Your task to perform on an android device: change the upload size in google photos Image 0: 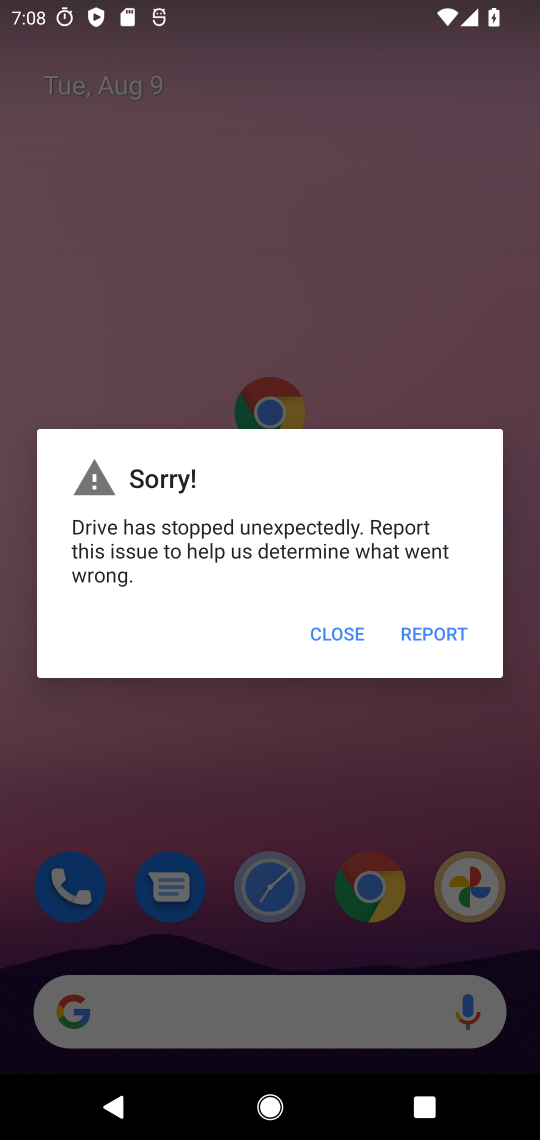
Step 0: click (349, 643)
Your task to perform on an android device: change the upload size in google photos Image 1: 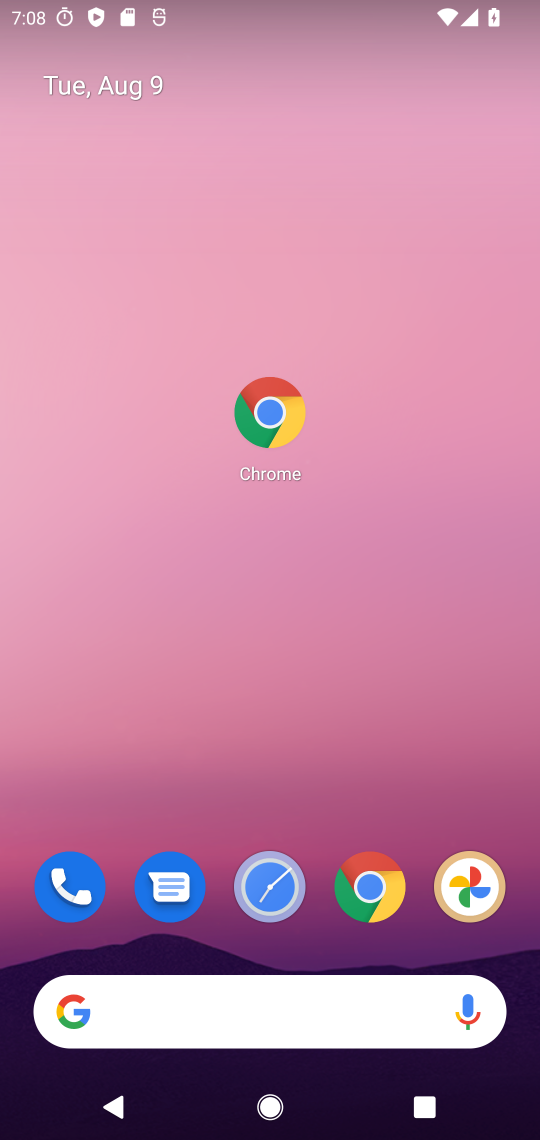
Step 1: drag from (267, 615) to (233, 390)
Your task to perform on an android device: change the upload size in google photos Image 2: 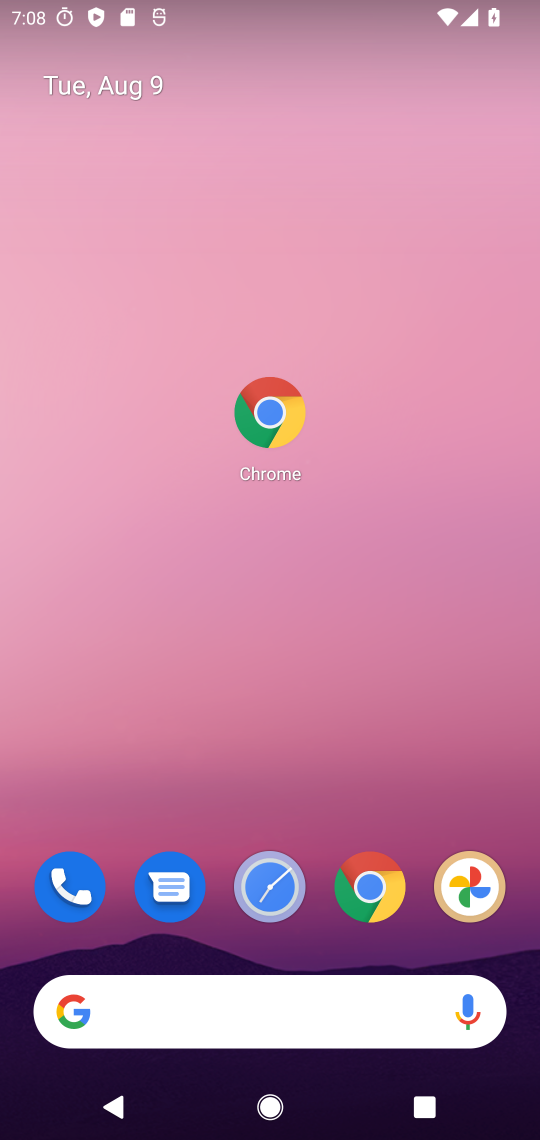
Step 2: drag from (270, 497) to (247, 217)
Your task to perform on an android device: change the upload size in google photos Image 3: 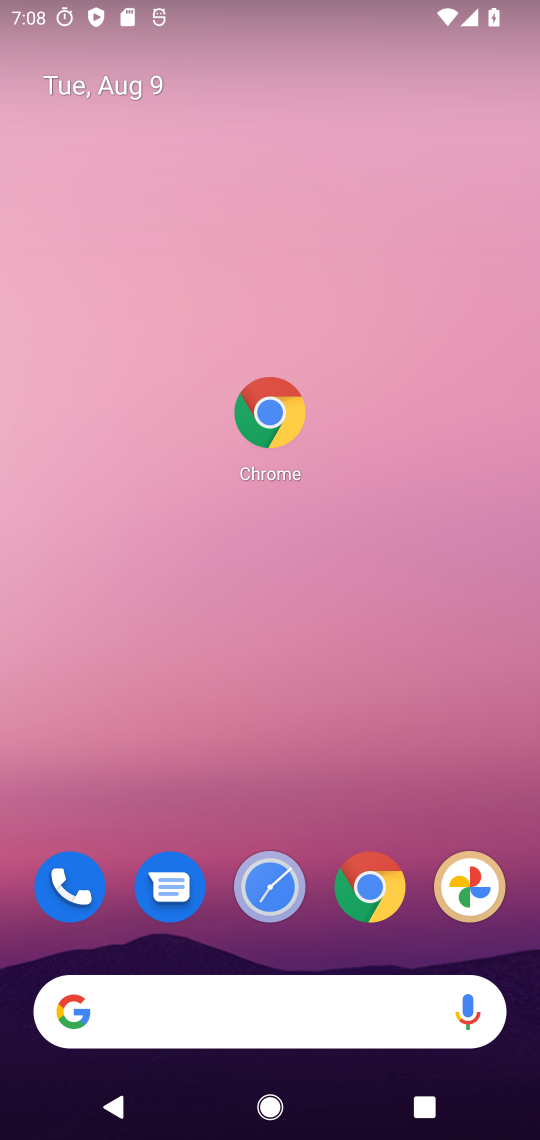
Step 3: drag from (269, 867) to (219, 70)
Your task to perform on an android device: change the upload size in google photos Image 4: 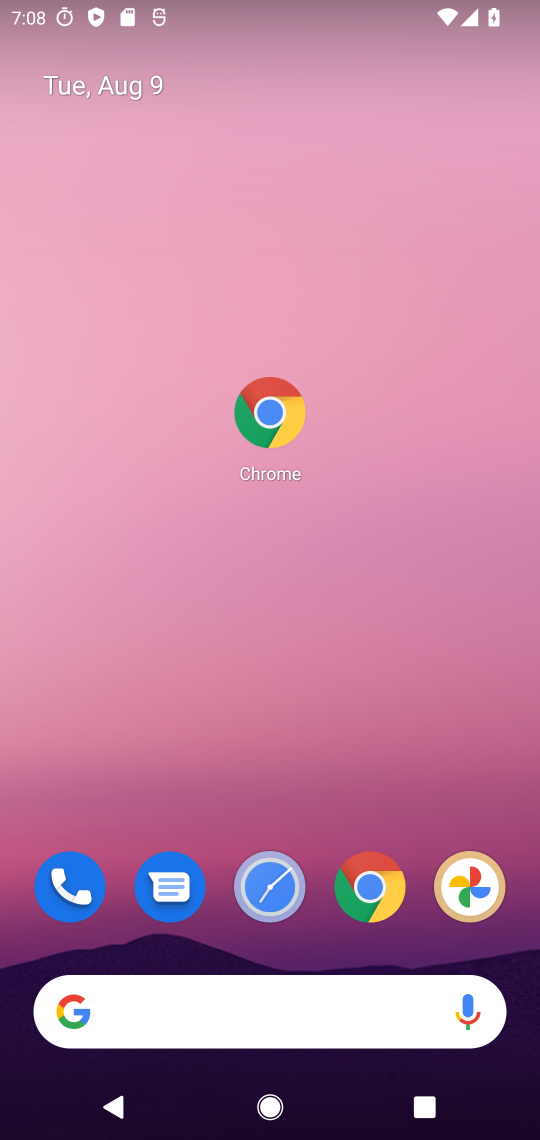
Step 4: drag from (323, 702) to (323, 177)
Your task to perform on an android device: change the upload size in google photos Image 5: 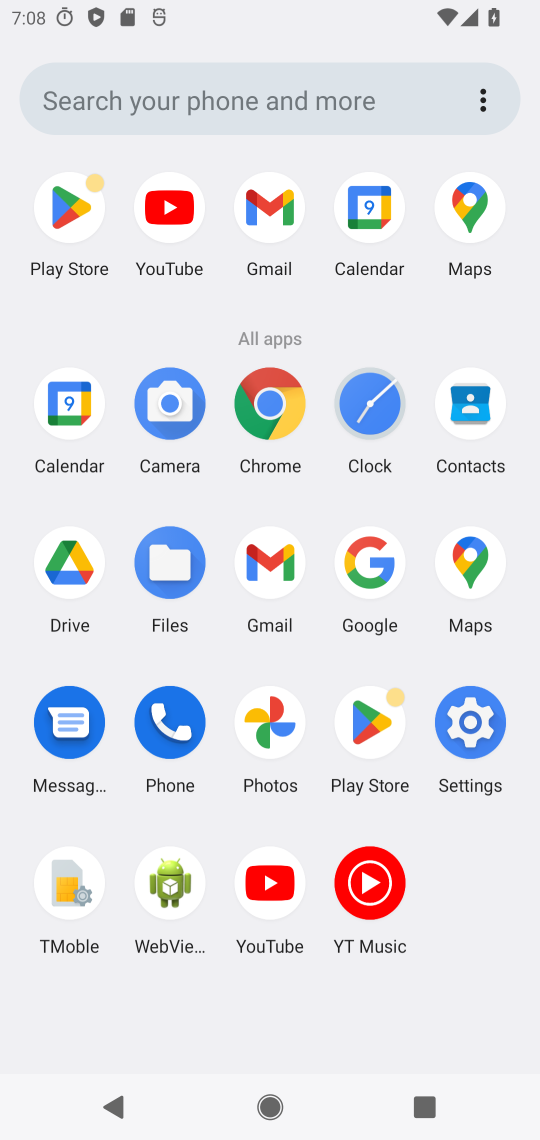
Step 5: drag from (295, 165) to (295, 86)
Your task to perform on an android device: change the upload size in google photos Image 6: 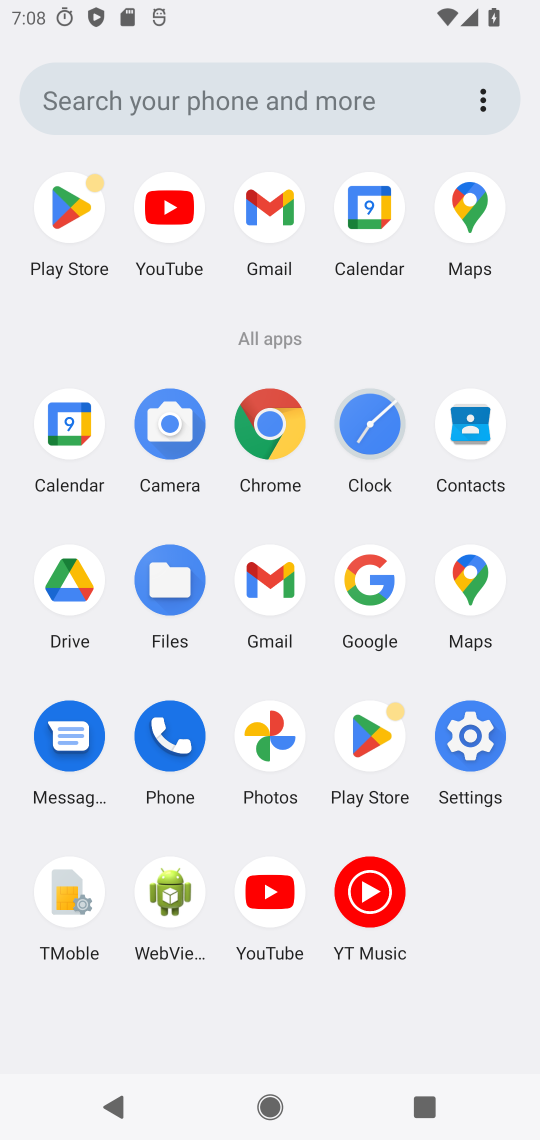
Step 6: click (259, 744)
Your task to perform on an android device: change the upload size in google photos Image 7: 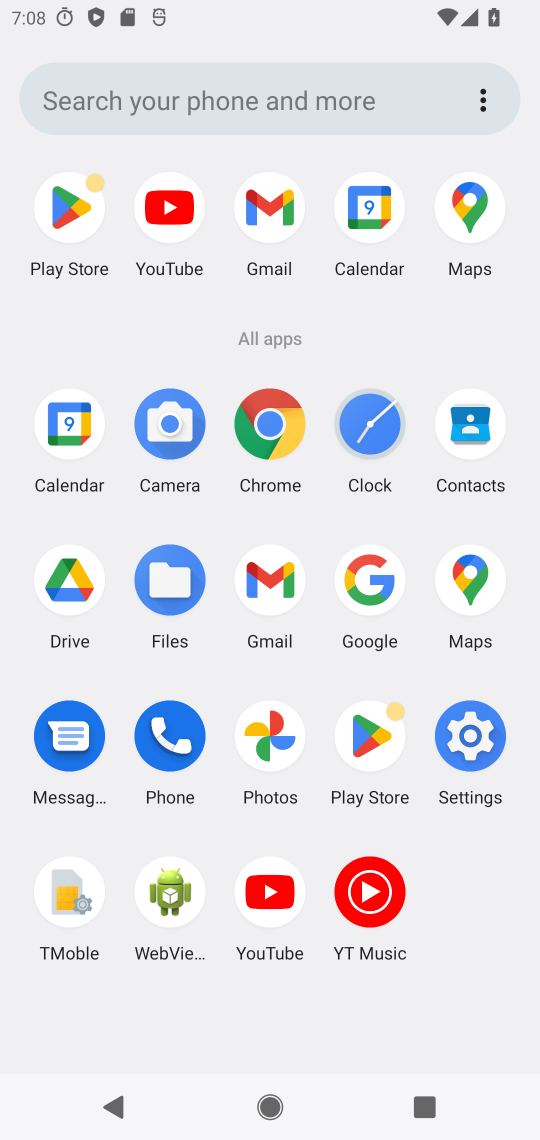
Step 7: click (257, 743)
Your task to perform on an android device: change the upload size in google photos Image 8: 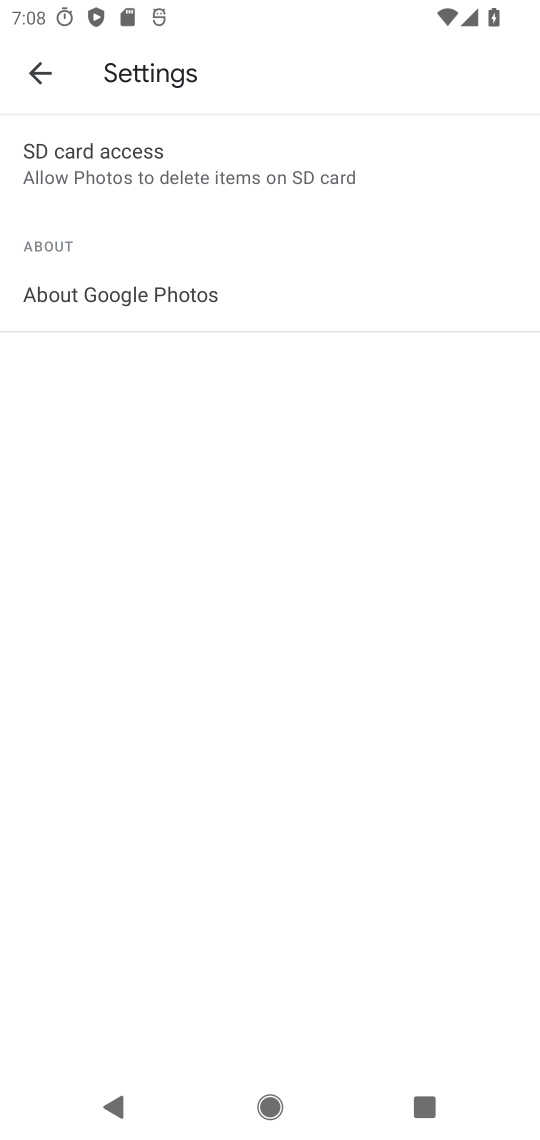
Step 8: click (255, 744)
Your task to perform on an android device: change the upload size in google photos Image 9: 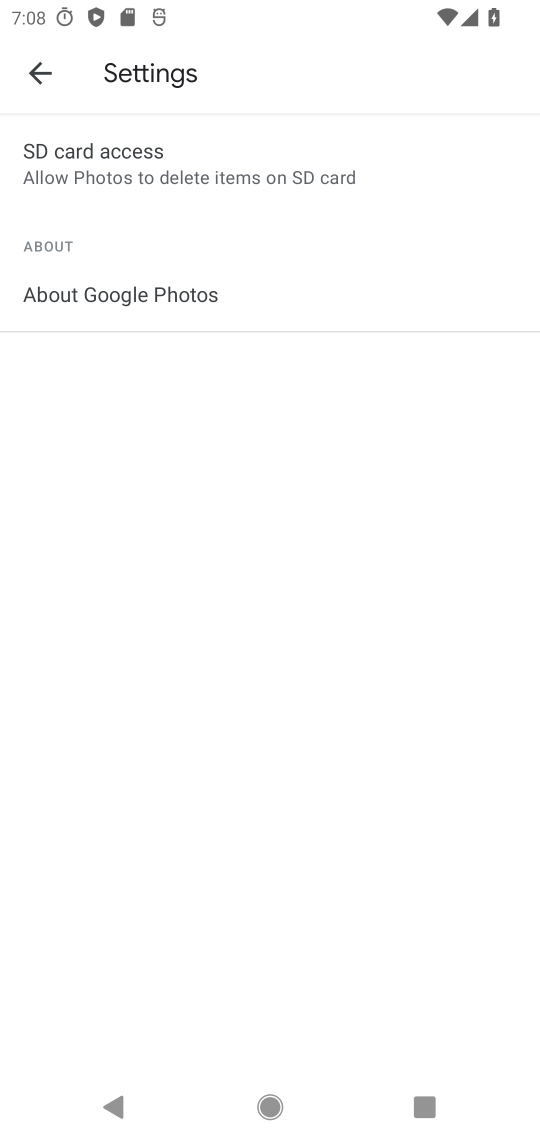
Step 9: click (44, 42)
Your task to perform on an android device: change the upload size in google photos Image 10: 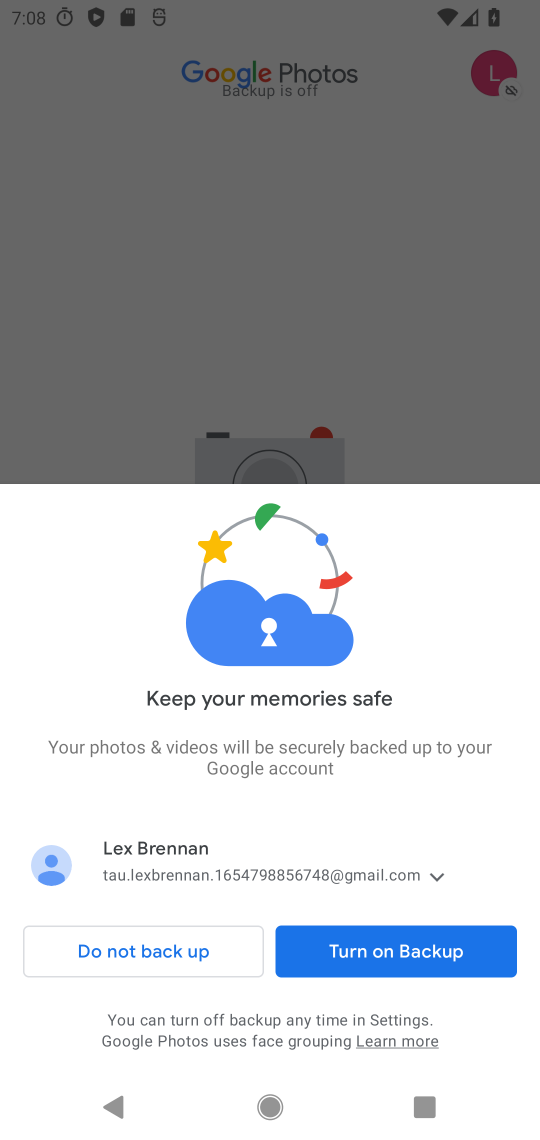
Step 10: press back button
Your task to perform on an android device: change the upload size in google photos Image 11: 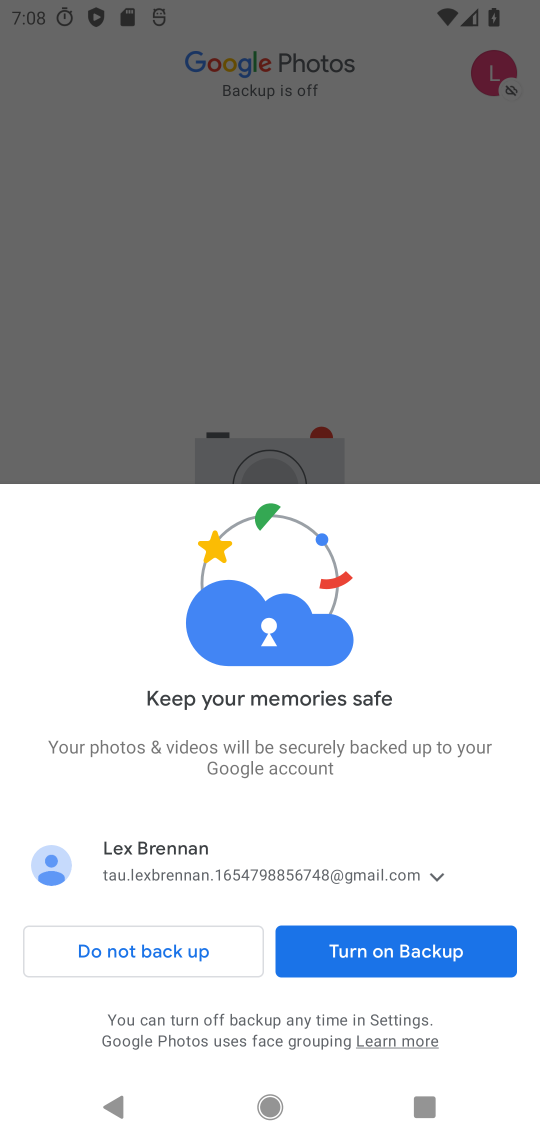
Step 11: press back button
Your task to perform on an android device: change the upload size in google photos Image 12: 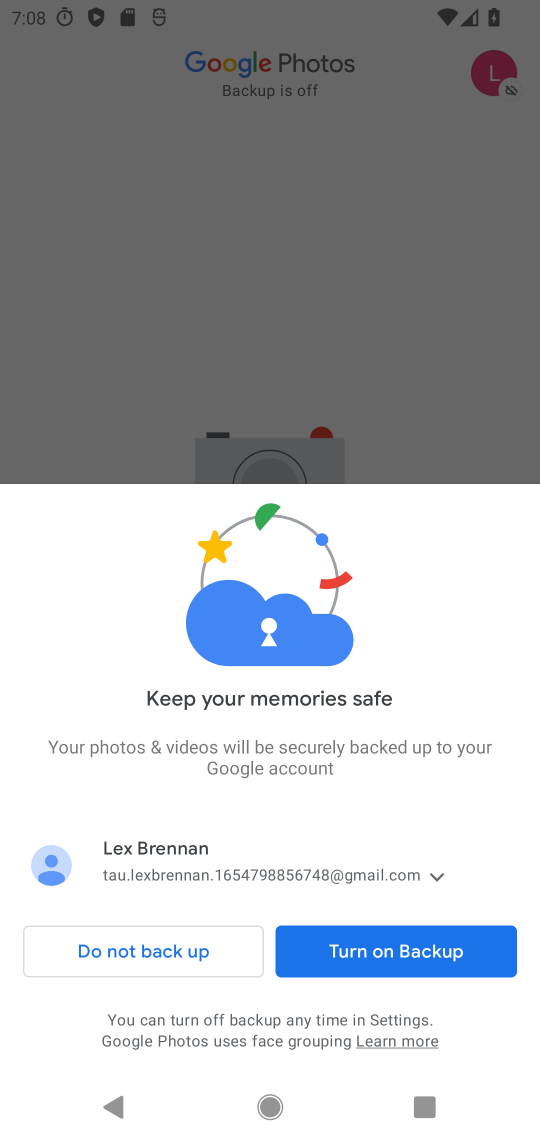
Step 12: press back button
Your task to perform on an android device: change the upload size in google photos Image 13: 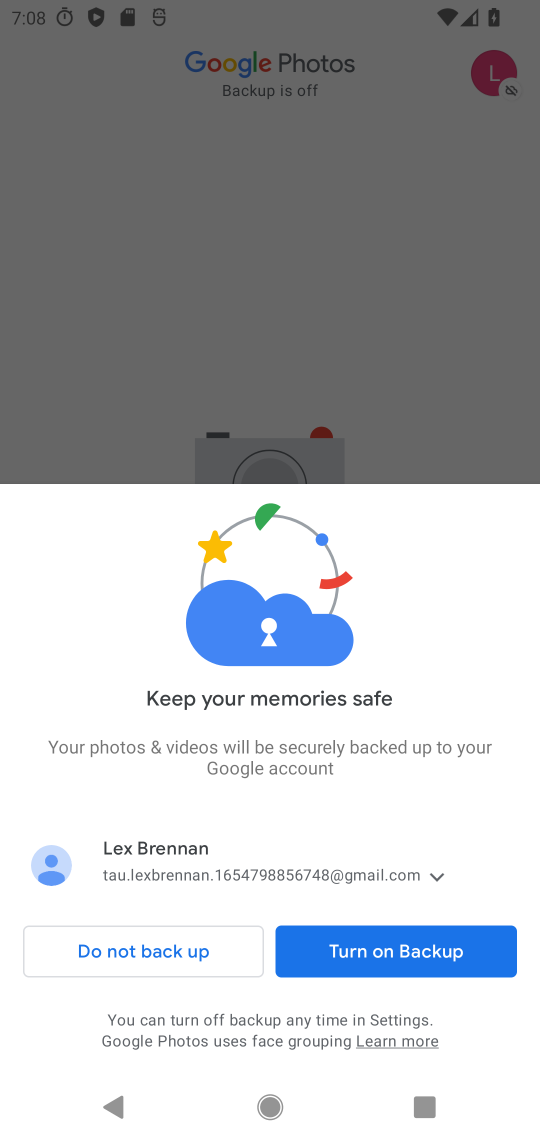
Step 13: click (296, 335)
Your task to perform on an android device: change the upload size in google photos Image 14: 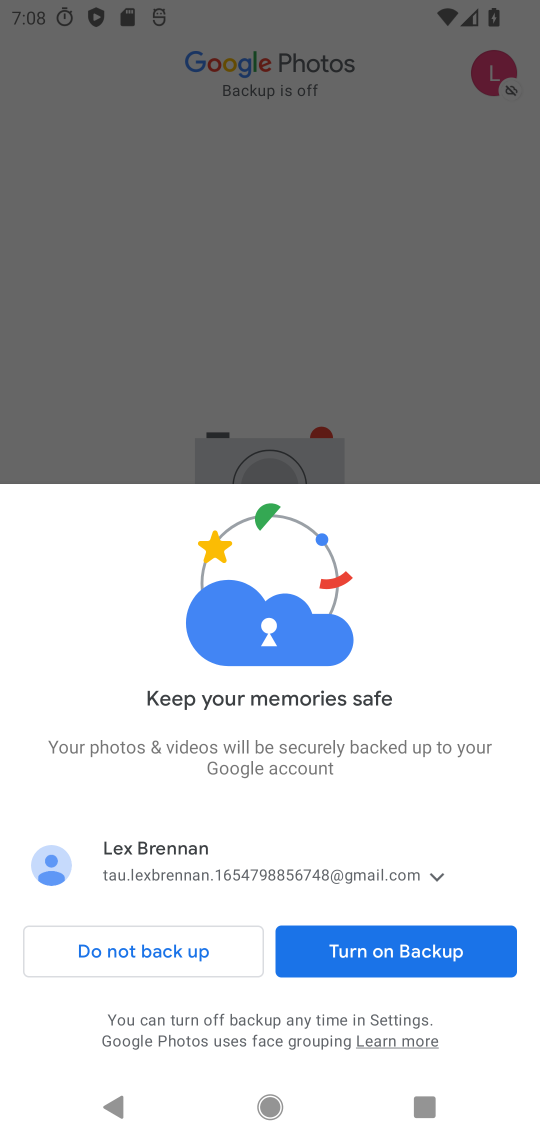
Step 14: click (301, 328)
Your task to perform on an android device: change the upload size in google photos Image 15: 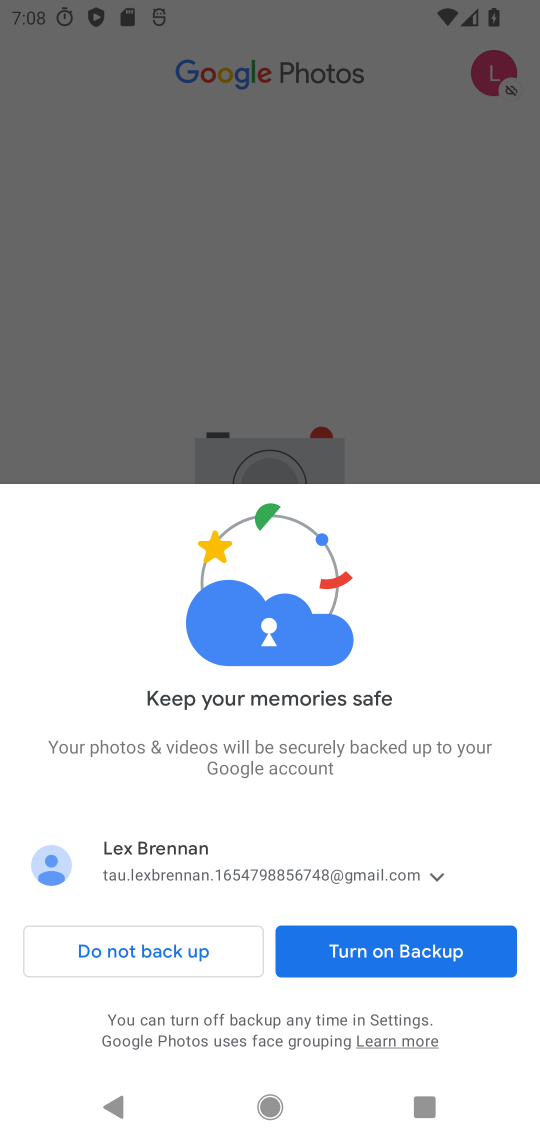
Step 15: press home button
Your task to perform on an android device: change the upload size in google photos Image 16: 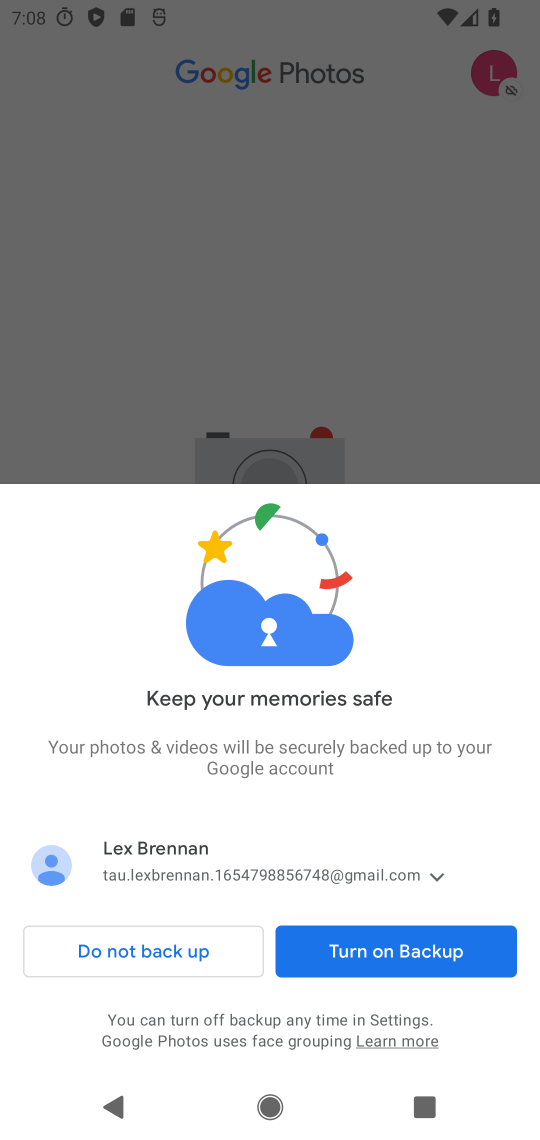
Step 16: click (370, 320)
Your task to perform on an android device: change the upload size in google photos Image 17: 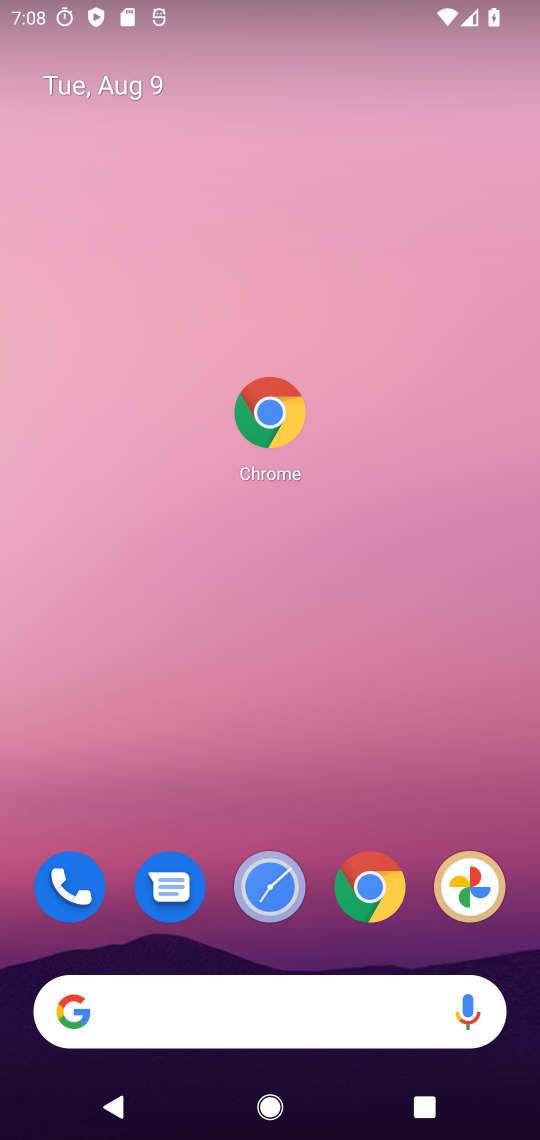
Step 17: drag from (383, 1081) to (282, 388)
Your task to perform on an android device: change the upload size in google photos Image 18: 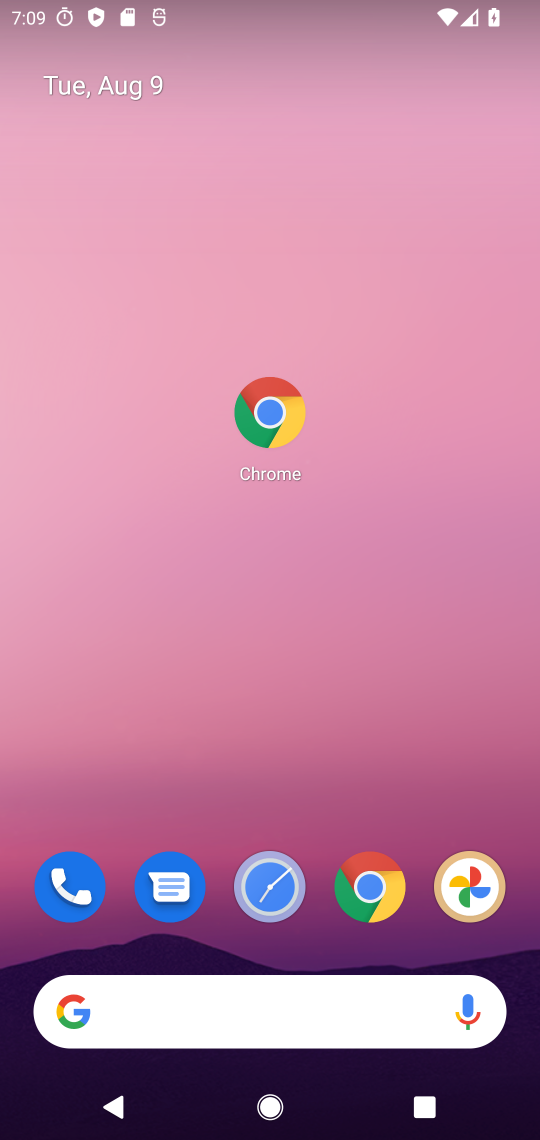
Step 18: drag from (249, 833) to (256, 356)
Your task to perform on an android device: change the upload size in google photos Image 19: 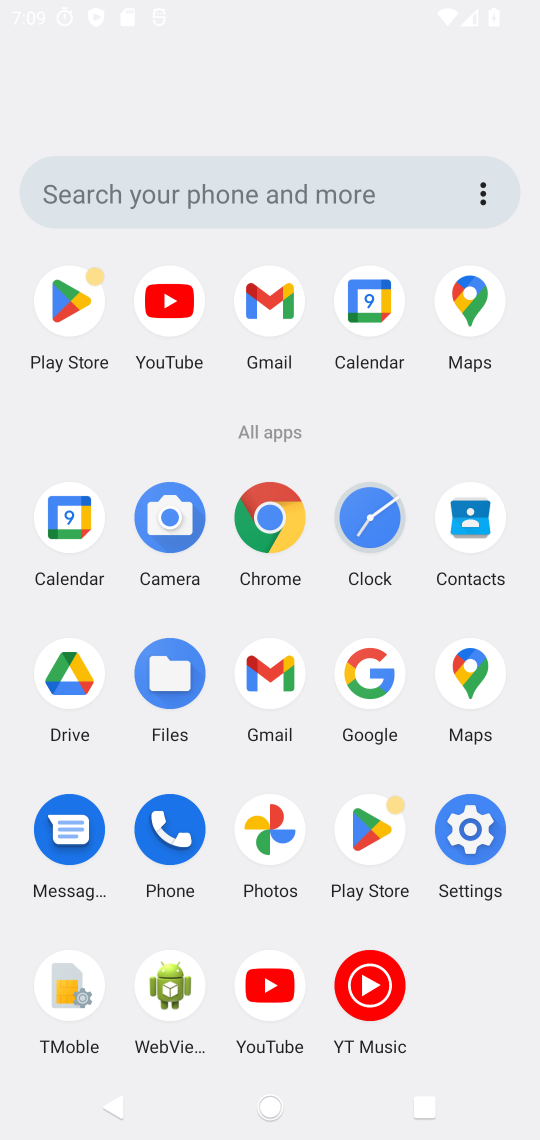
Step 19: drag from (201, 177) to (192, 109)
Your task to perform on an android device: change the upload size in google photos Image 20: 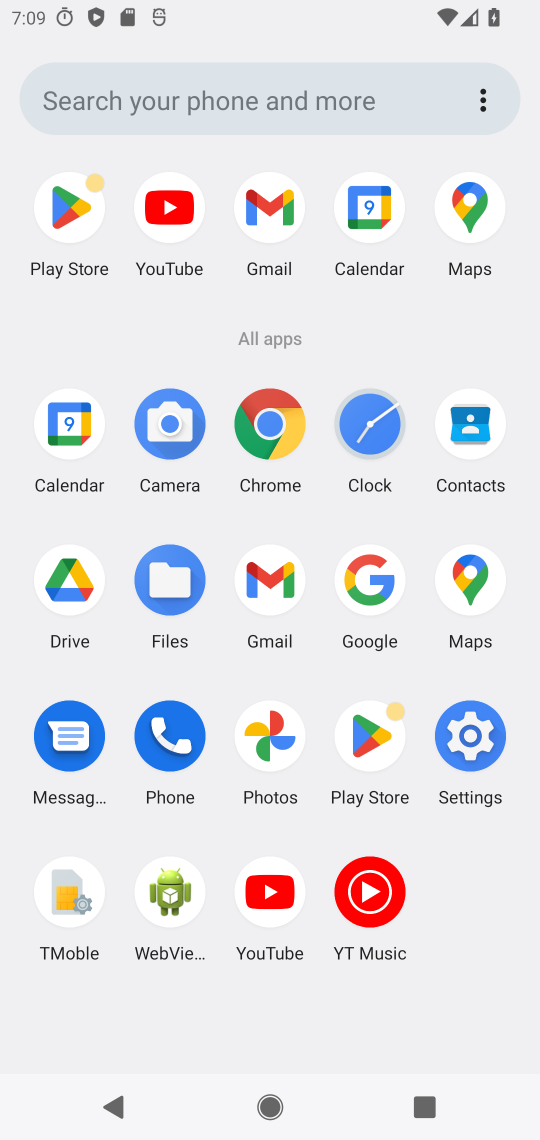
Step 20: click (266, 743)
Your task to perform on an android device: change the upload size in google photos Image 21: 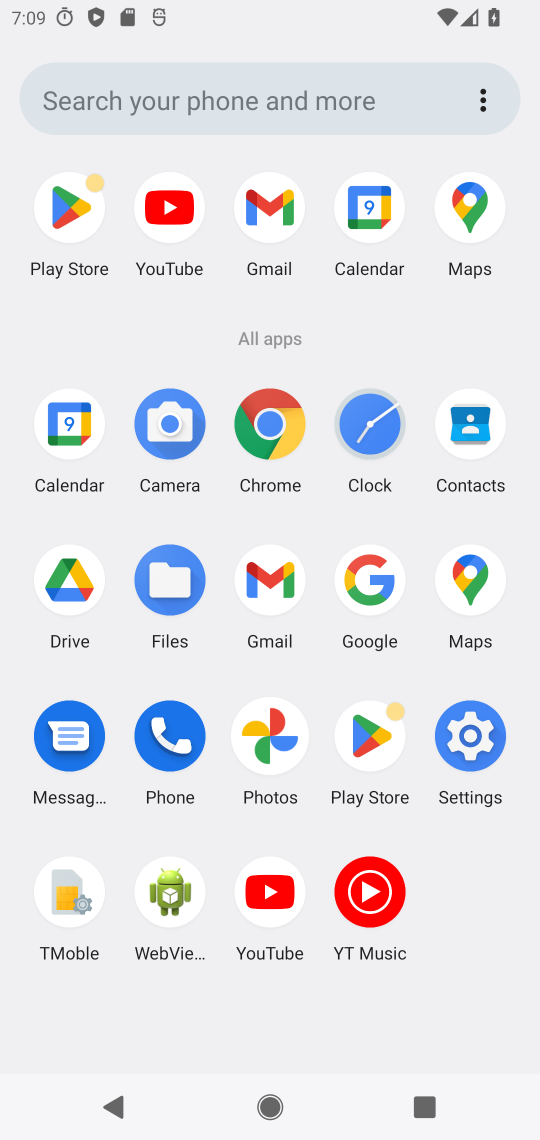
Step 21: click (262, 738)
Your task to perform on an android device: change the upload size in google photos Image 22: 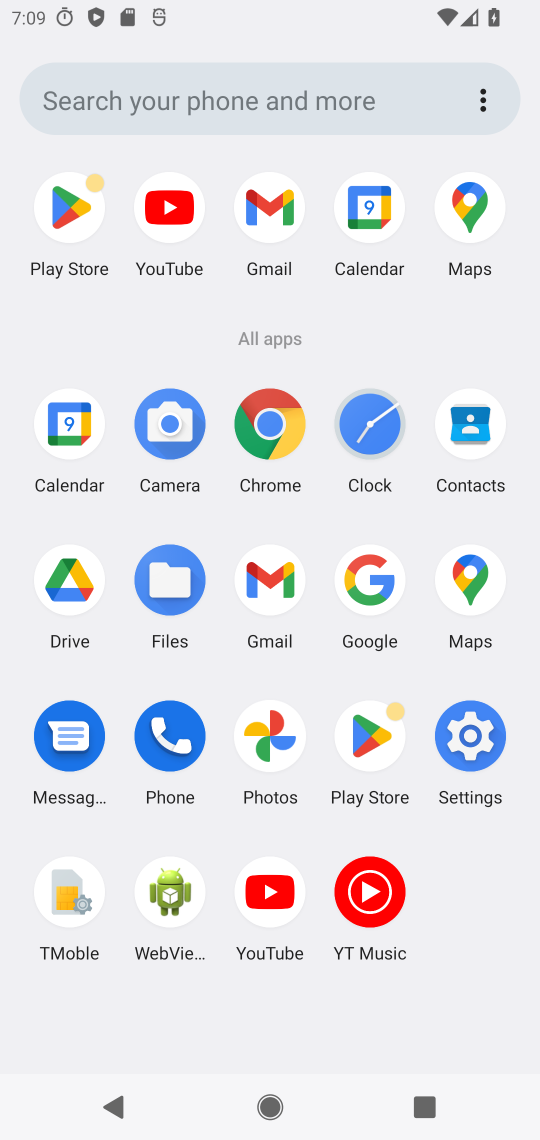
Step 22: click (270, 732)
Your task to perform on an android device: change the upload size in google photos Image 23: 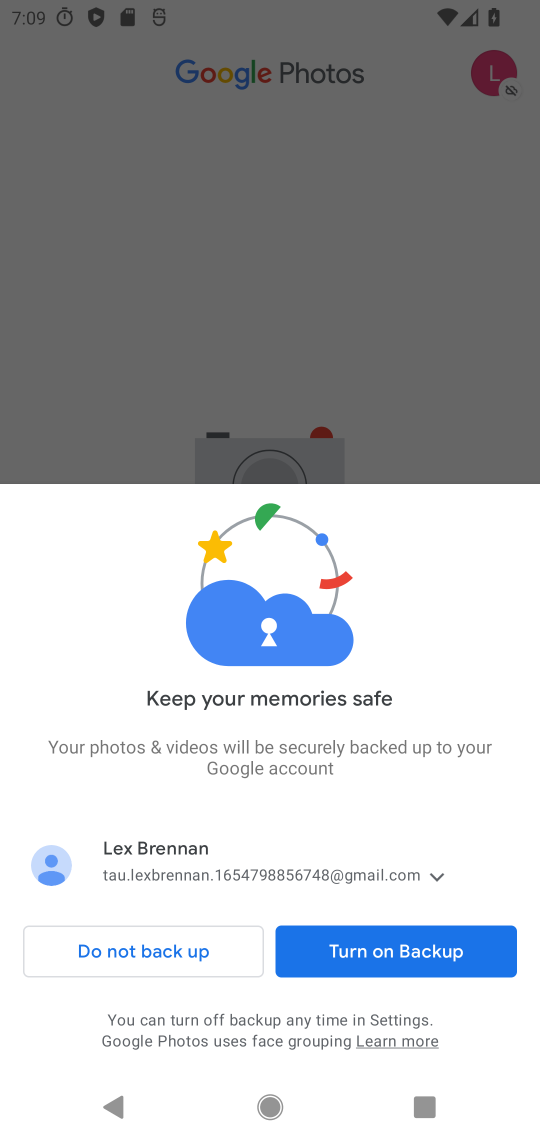
Step 23: click (166, 303)
Your task to perform on an android device: change the upload size in google photos Image 24: 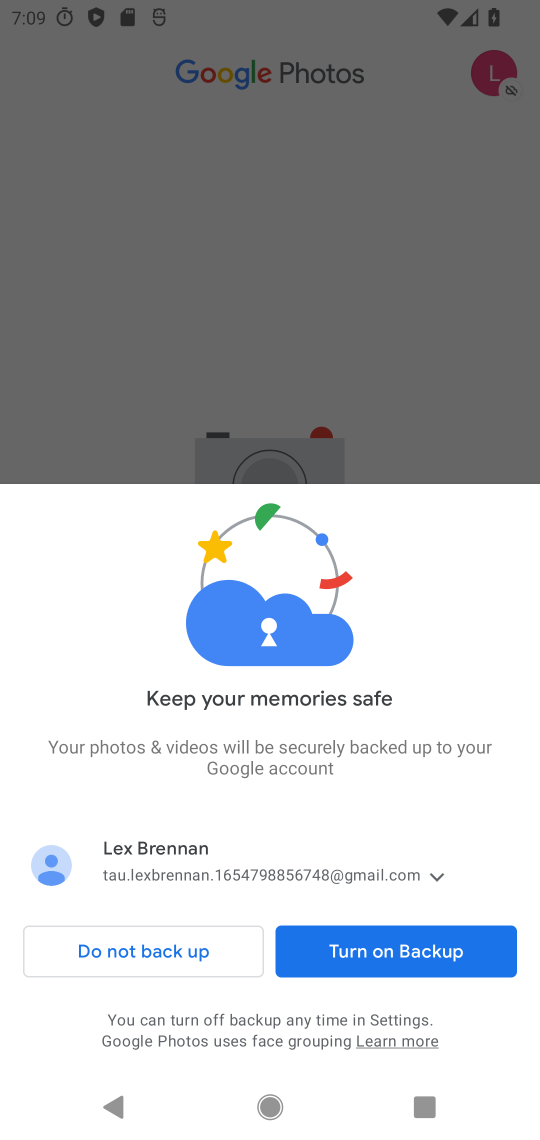
Step 24: click (172, 307)
Your task to perform on an android device: change the upload size in google photos Image 25: 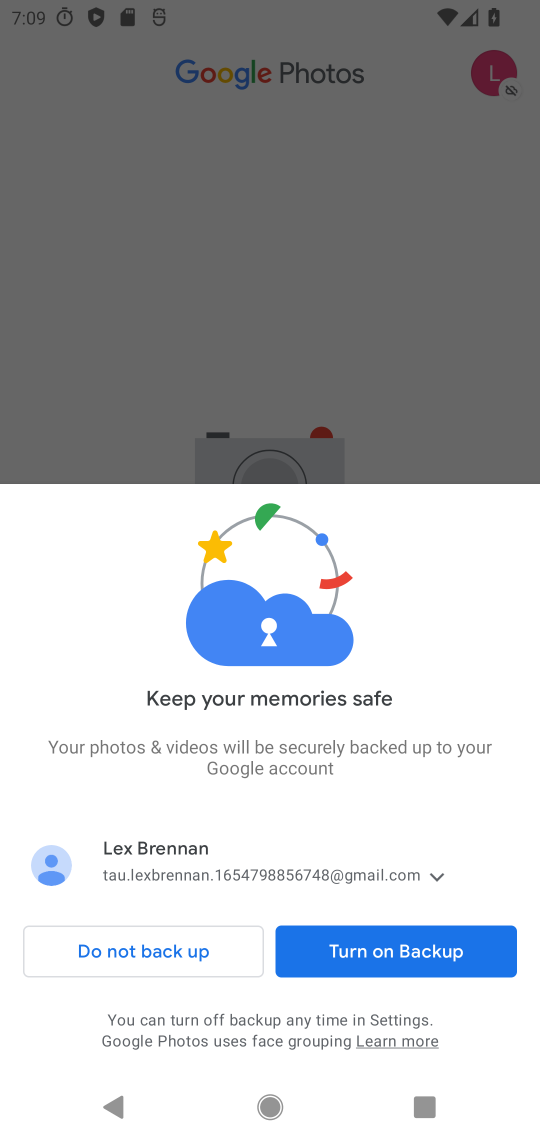
Step 25: click (172, 307)
Your task to perform on an android device: change the upload size in google photos Image 26: 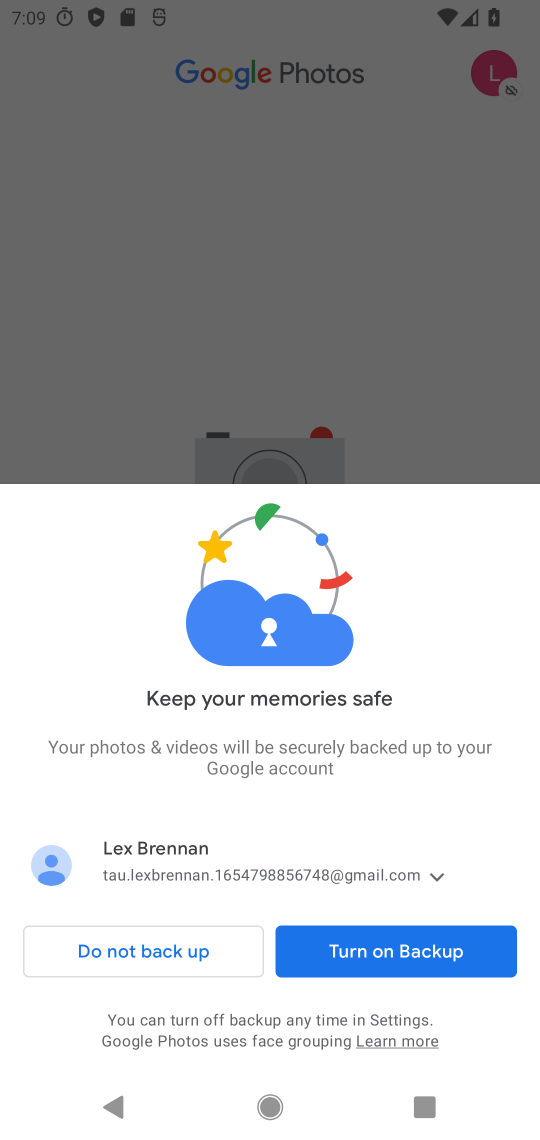
Step 26: click (152, 966)
Your task to perform on an android device: change the upload size in google photos Image 27: 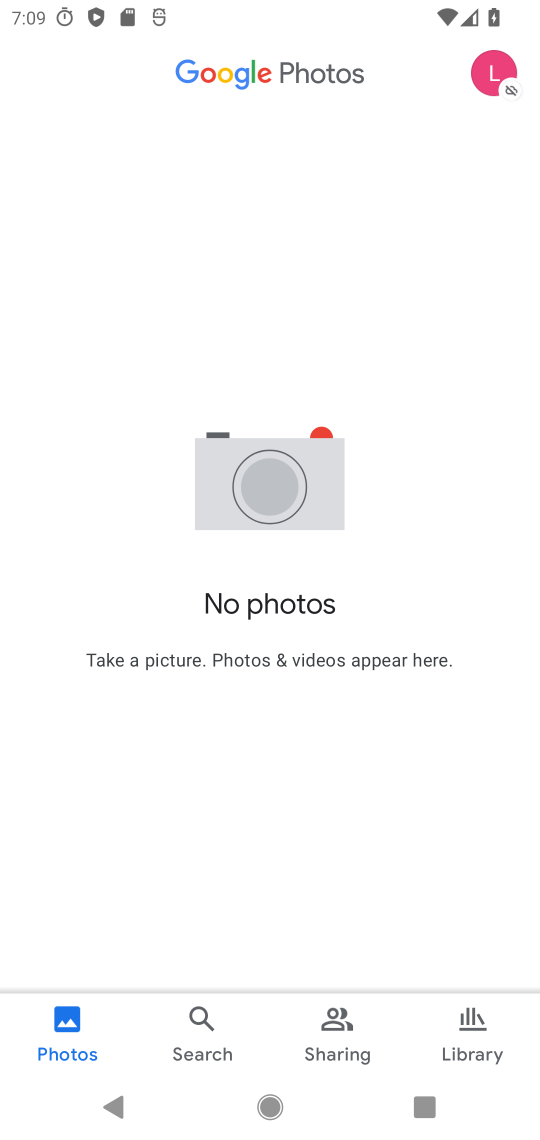
Step 27: click (512, 81)
Your task to perform on an android device: change the upload size in google photos Image 28: 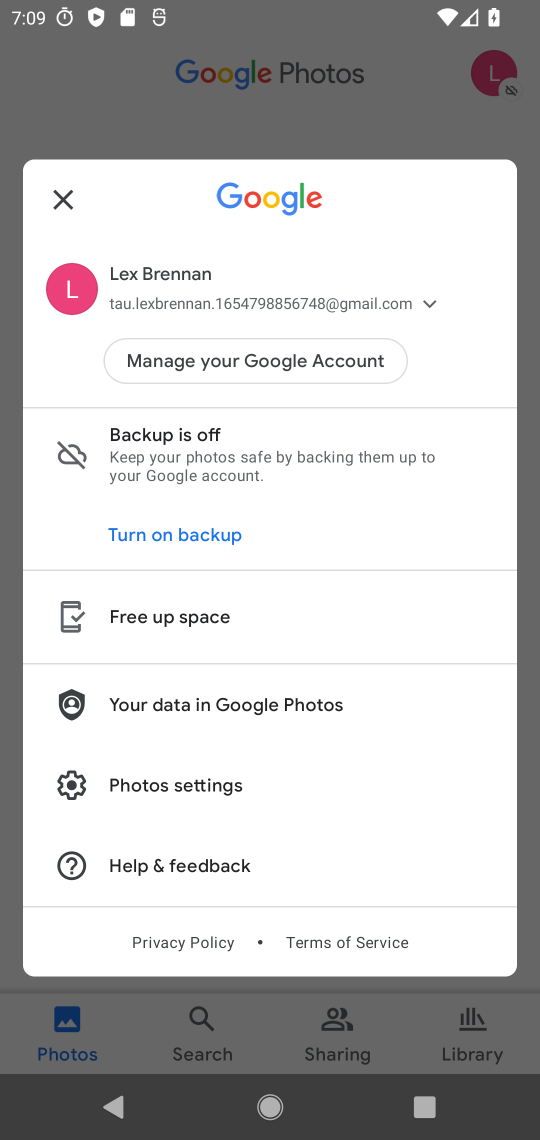
Step 28: click (202, 781)
Your task to perform on an android device: change the upload size in google photos Image 29: 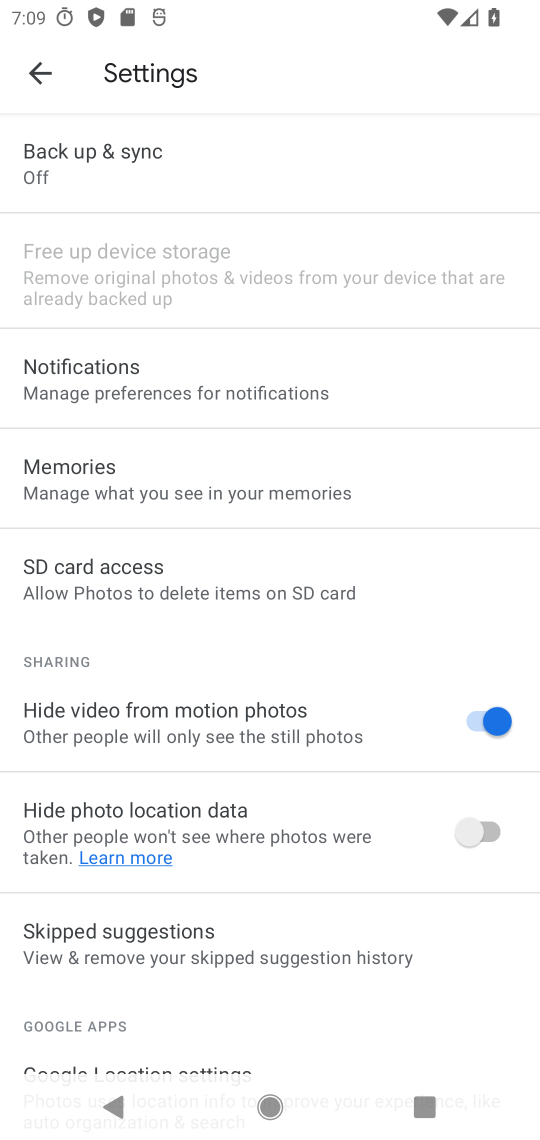
Step 29: click (99, 173)
Your task to perform on an android device: change the upload size in google photos Image 30: 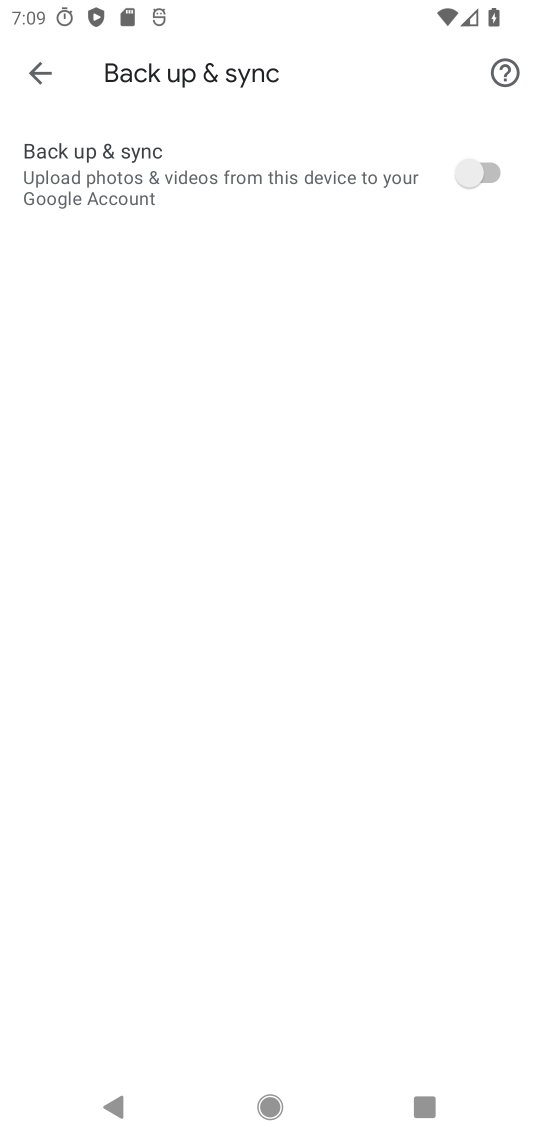
Step 30: click (484, 159)
Your task to perform on an android device: change the upload size in google photos Image 31: 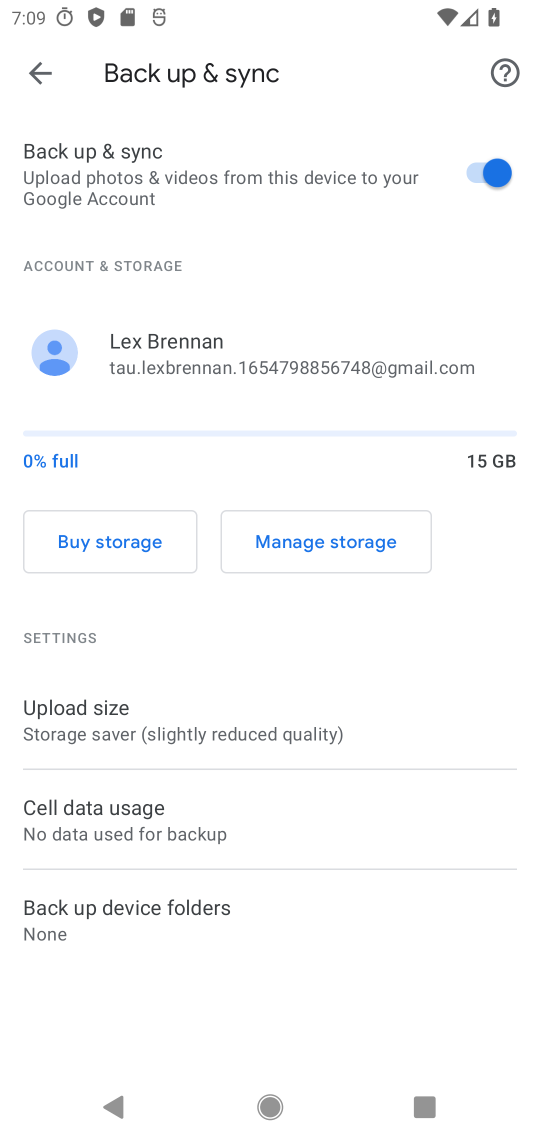
Step 31: click (82, 727)
Your task to perform on an android device: change the upload size in google photos Image 32: 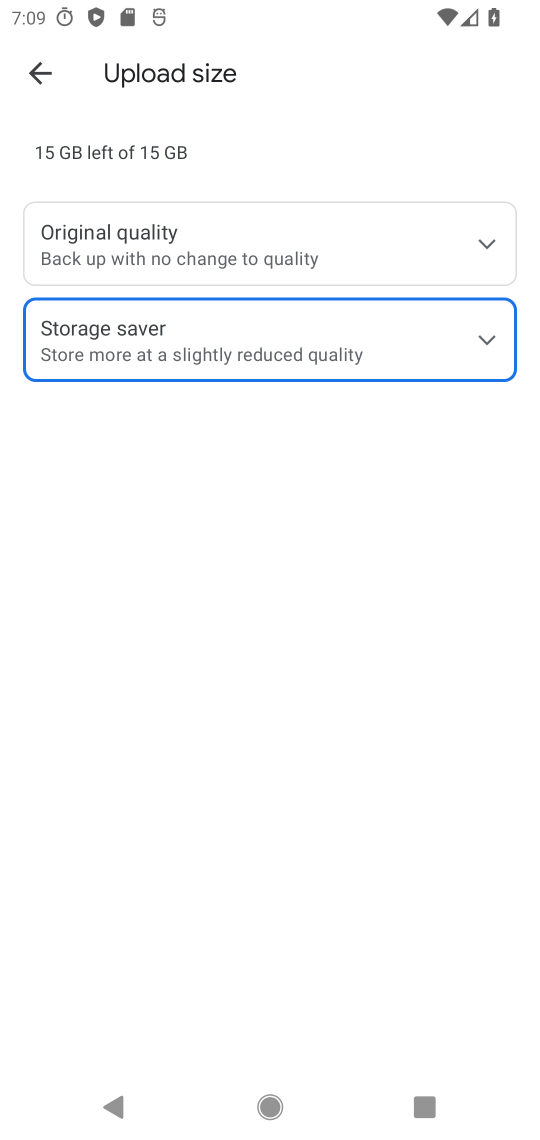
Step 32: click (104, 228)
Your task to perform on an android device: change the upload size in google photos Image 33: 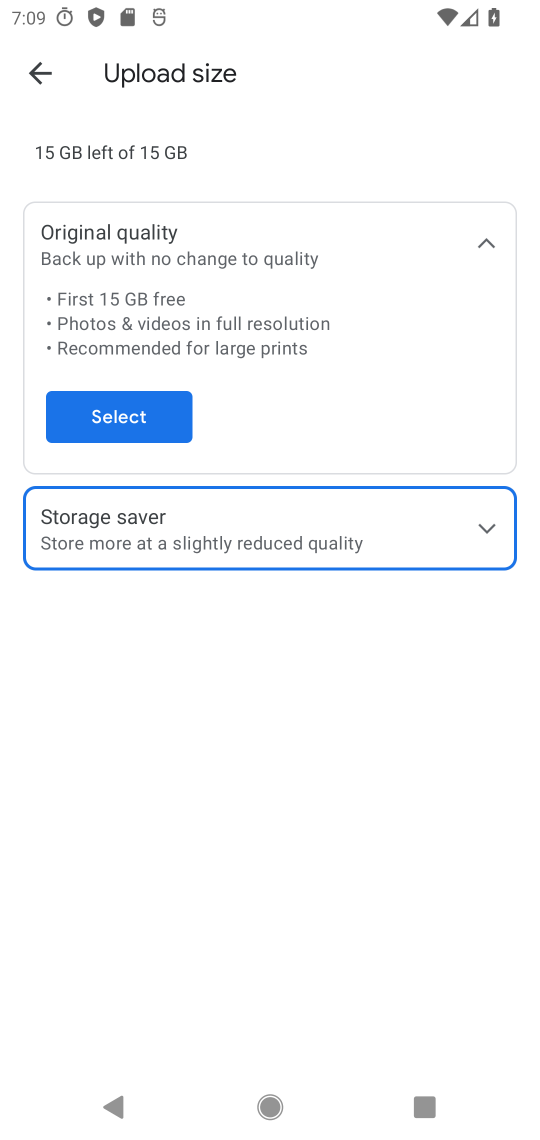
Step 33: click (120, 399)
Your task to perform on an android device: change the upload size in google photos Image 34: 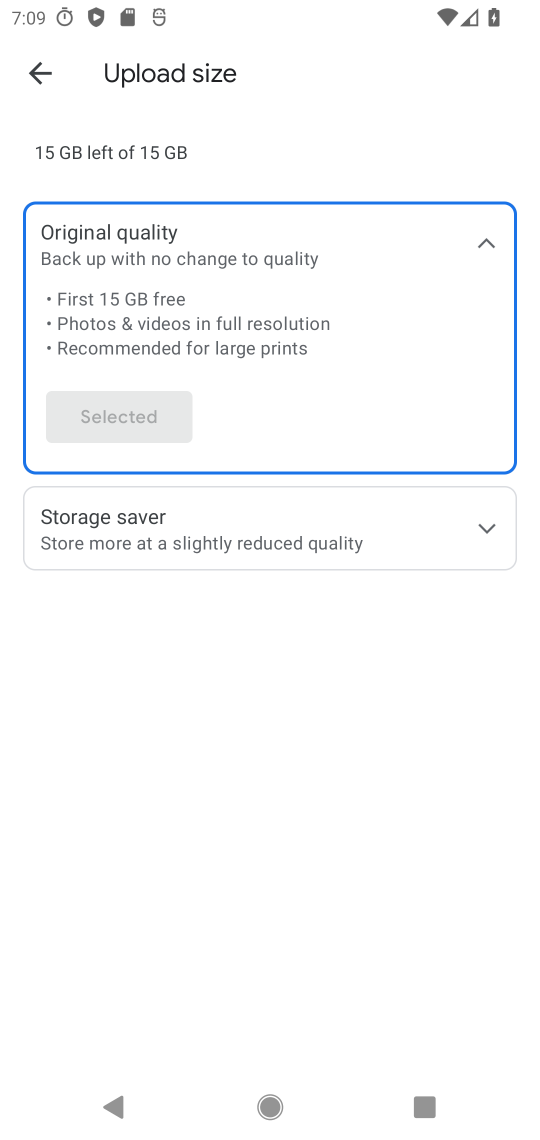
Step 34: task complete